Your task to perform on an android device: Open Google Chrome Image 0: 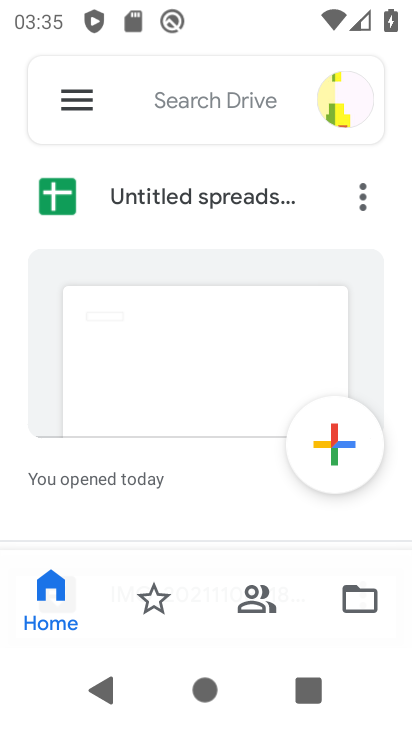
Step 0: press home button
Your task to perform on an android device: Open Google Chrome Image 1: 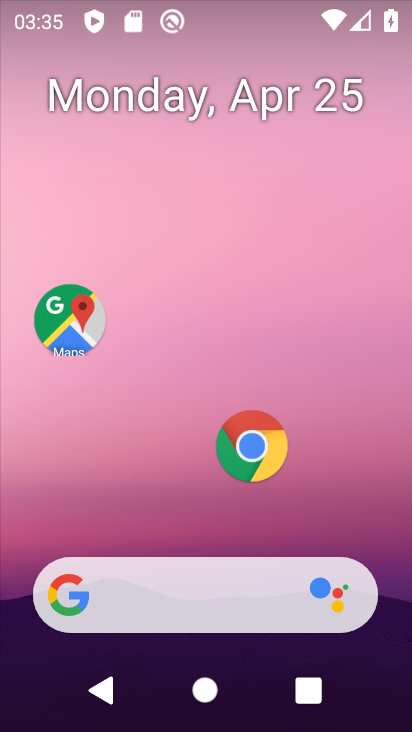
Step 1: click (248, 462)
Your task to perform on an android device: Open Google Chrome Image 2: 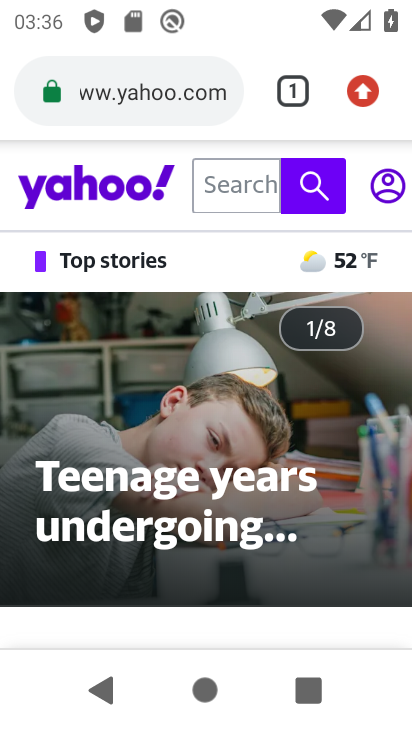
Step 2: task complete